Your task to perform on an android device: turn on priority inbox in the gmail app Image 0: 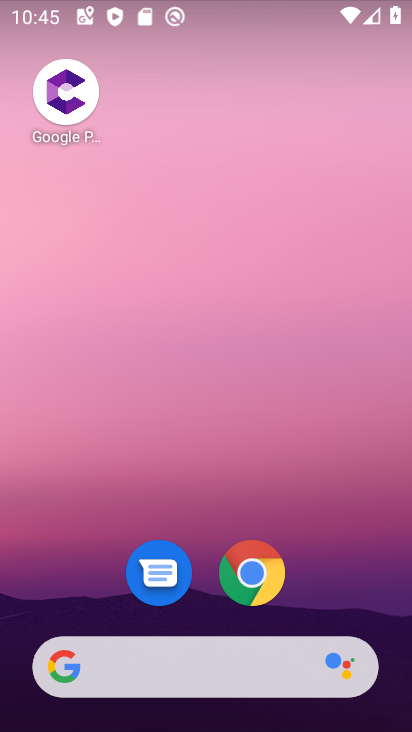
Step 0: drag from (226, 514) to (301, 27)
Your task to perform on an android device: turn on priority inbox in the gmail app Image 1: 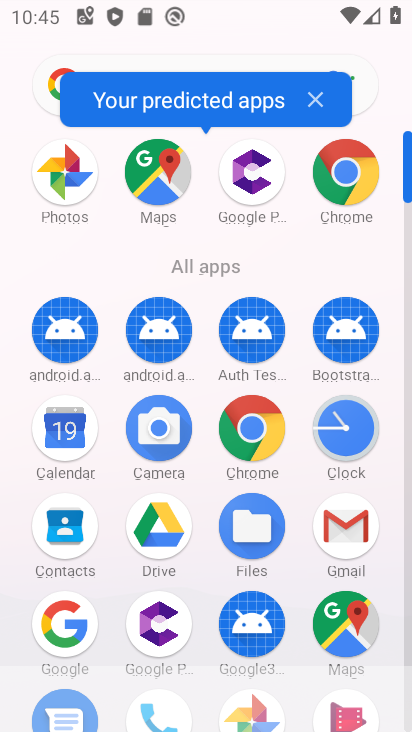
Step 1: click (344, 524)
Your task to perform on an android device: turn on priority inbox in the gmail app Image 2: 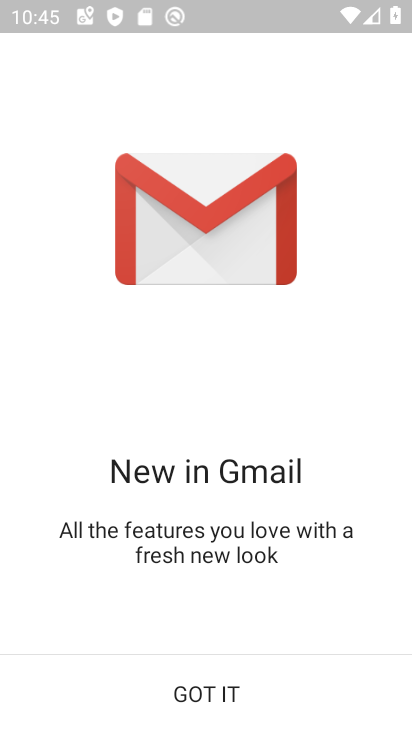
Step 2: click (222, 689)
Your task to perform on an android device: turn on priority inbox in the gmail app Image 3: 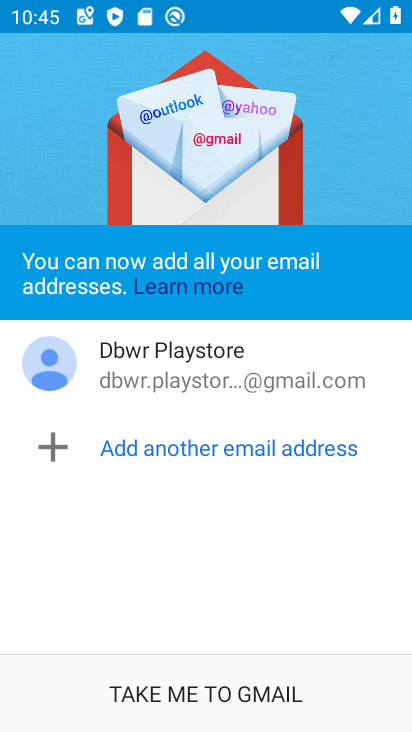
Step 3: click (190, 690)
Your task to perform on an android device: turn on priority inbox in the gmail app Image 4: 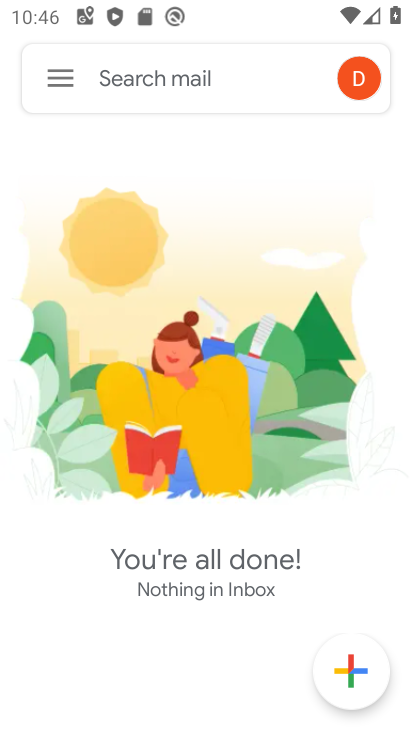
Step 4: click (50, 74)
Your task to perform on an android device: turn on priority inbox in the gmail app Image 5: 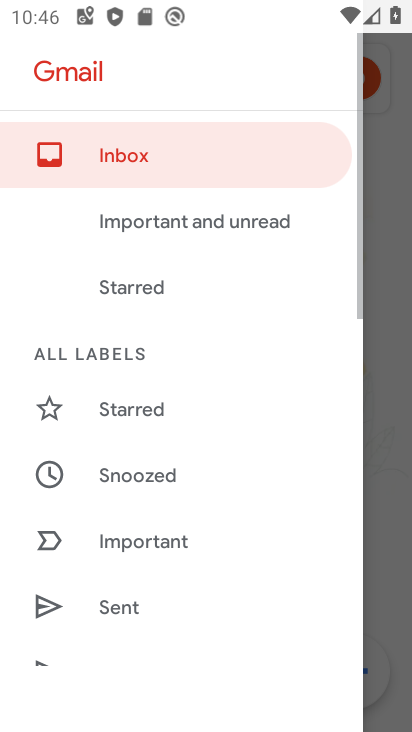
Step 5: drag from (150, 597) to (341, 2)
Your task to perform on an android device: turn on priority inbox in the gmail app Image 6: 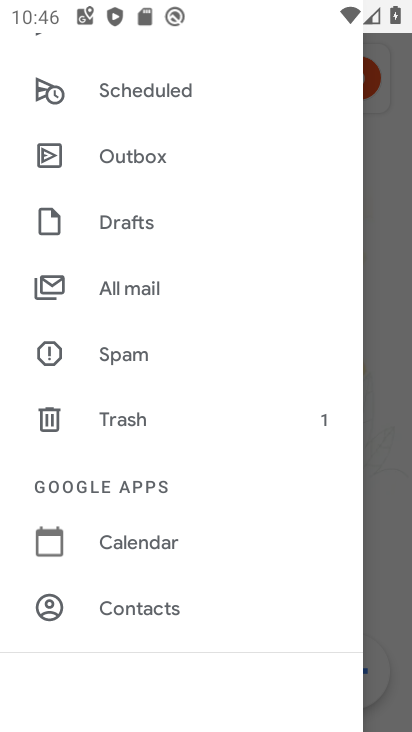
Step 6: drag from (147, 605) to (309, 16)
Your task to perform on an android device: turn on priority inbox in the gmail app Image 7: 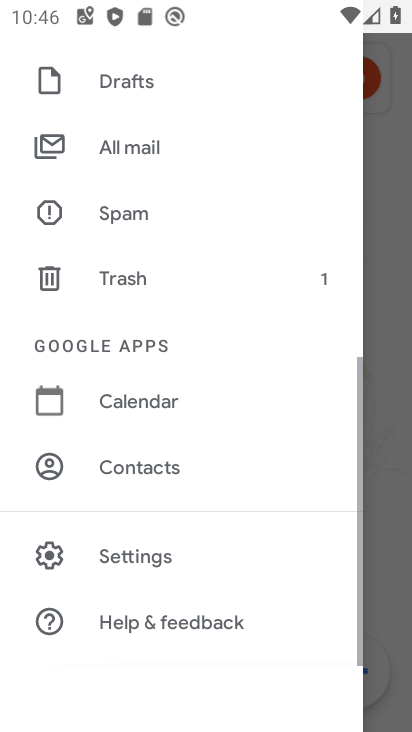
Step 7: click (126, 565)
Your task to perform on an android device: turn on priority inbox in the gmail app Image 8: 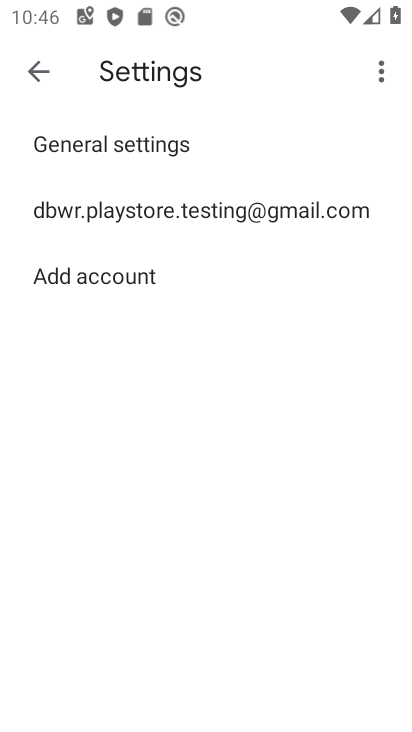
Step 8: click (119, 205)
Your task to perform on an android device: turn on priority inbox in the gmail app Image 9: 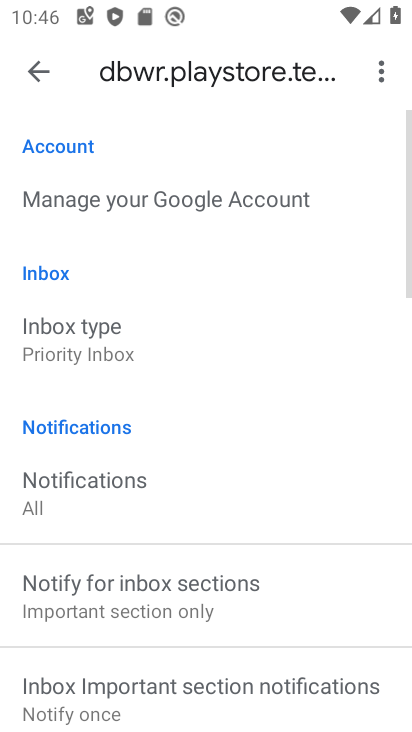
Step 9: click (94, 352)
Your task to perform on an android device: turn on priority inbox in the gmail app Image 10: 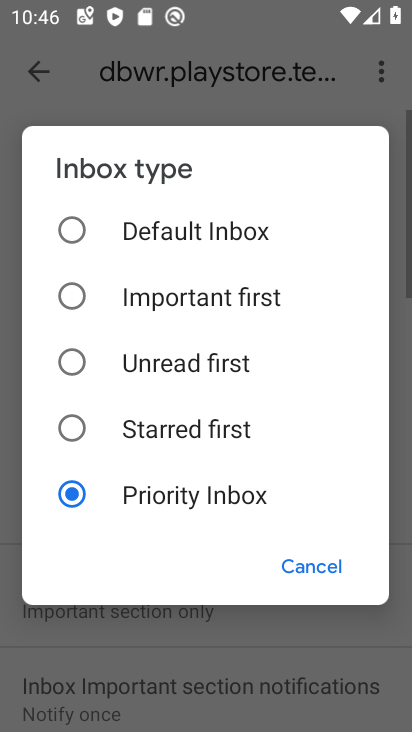
Step 10: click (75, 496)
Your task to perform on an android device: turn on priority inbox in the gmail app Image 11: 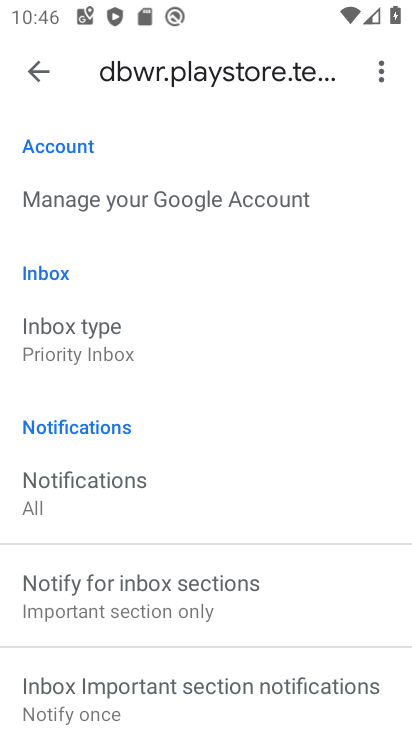
Step 11: task complete